Your task to perform on an android device: turn off notifications in google photos Image 0: 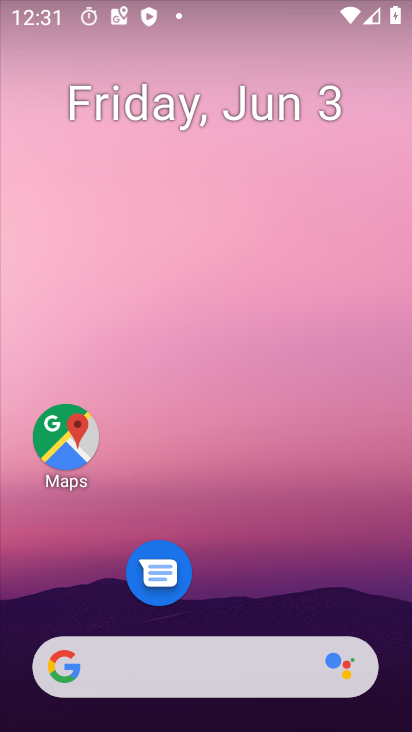
Step 0: drag from (308, 661) to (307, 101)
Your task to perform on an android device: turn off notifications in google photos Image 1: 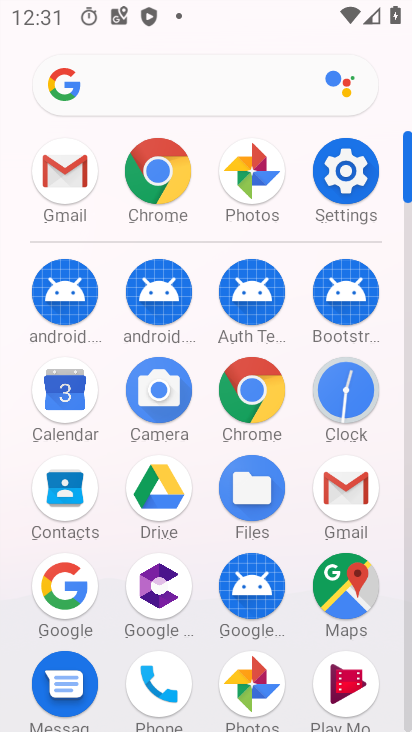
Step 1: click (265, 661)
Your task to perform on an android device: turn off notifications in google photos Image 2: 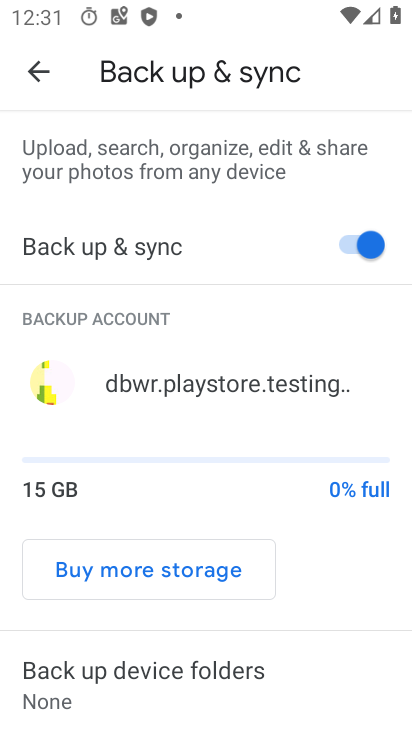
Step 2: press back button
Your task to perform on an android device: turn off notifications in google photos Image 3: 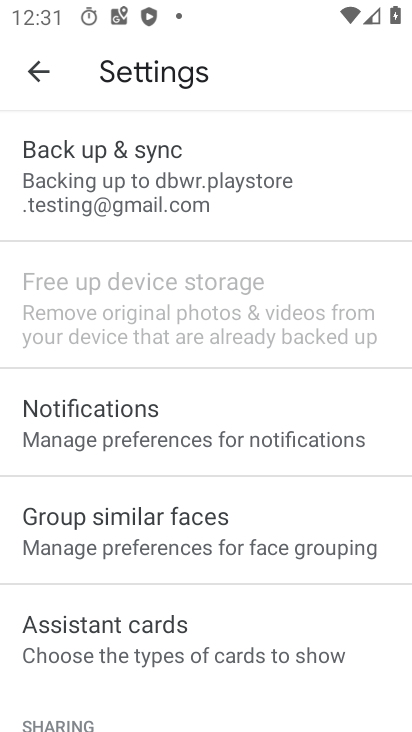
Step 3: click (145, 413)
Your task to perform on an android device: turn off notifications in google photos Image 4: 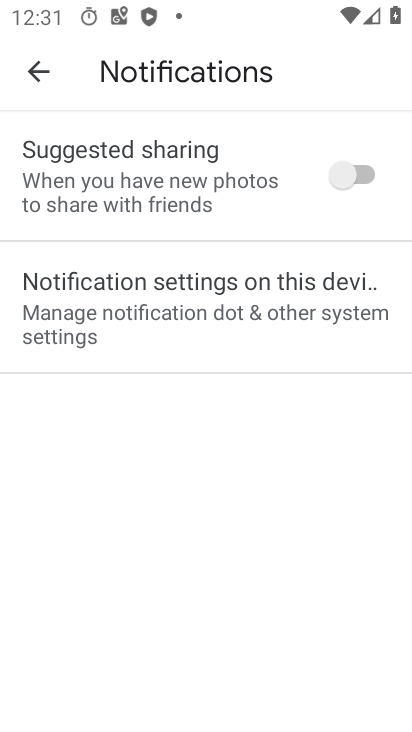
Step 4: click (340, 286)
Your task to perform on an android device: turn off notifications in google photos Image 5: 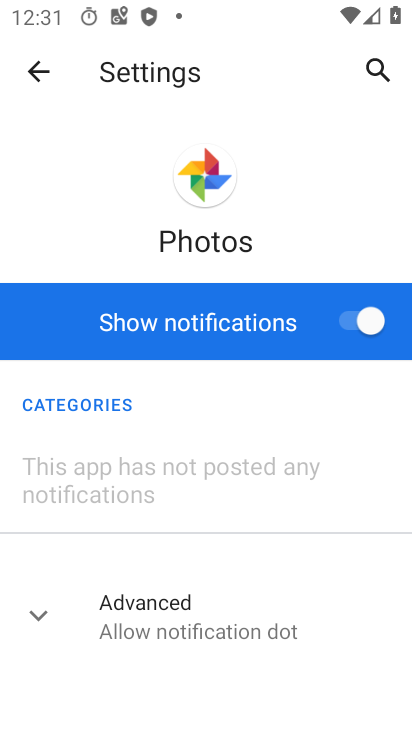
Step 5: click (345, 317)
Your task to perform on an android device: turn off notifications in google photos Image 6: 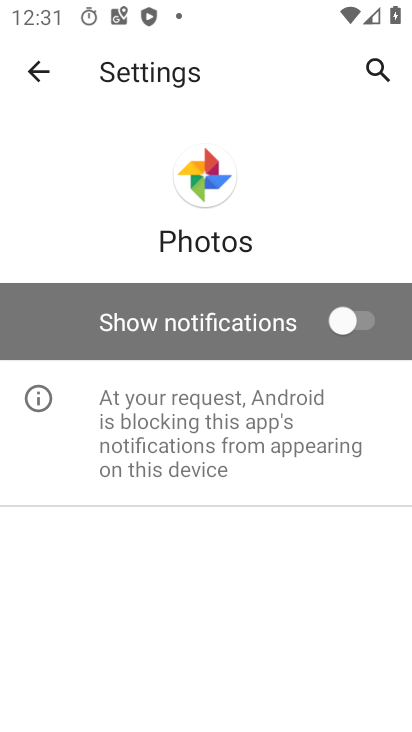
Step 6: task complete